Your task to perform on an android device: manage bookmarks in the chrome app Image 0: 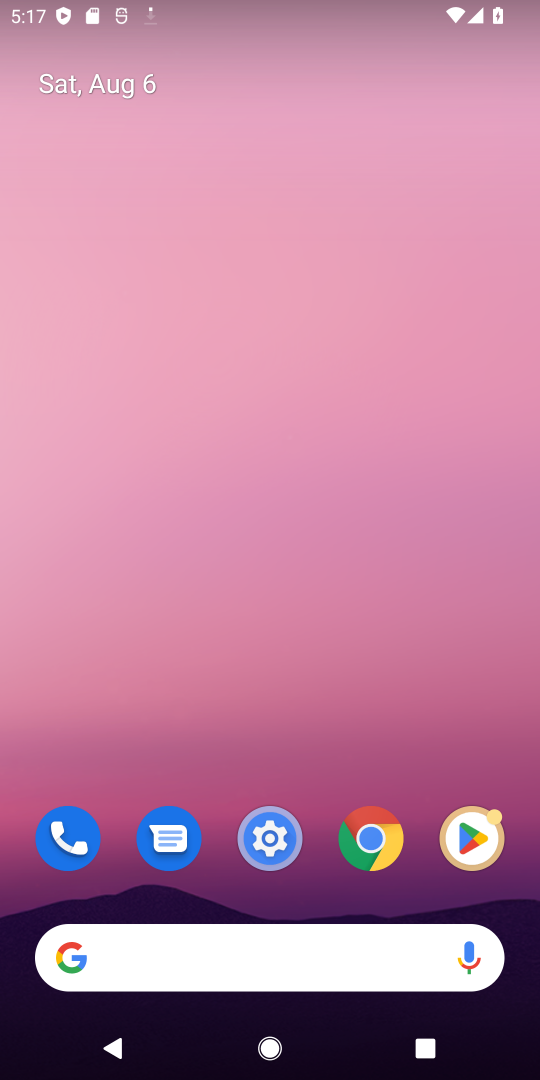
Step 0: click (372, 836)
Your task to perform on an android device: manage bookmarks in the chrome app Image 1: 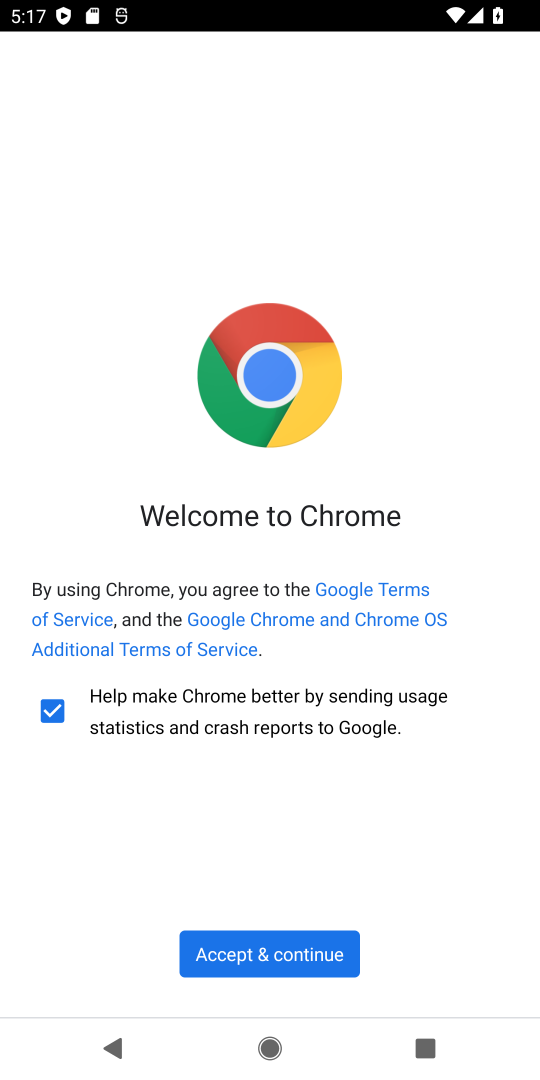
Step 1: click (286, 960)
Your task to perform on an android device: manage bookmarks in the chrome app Image 2: 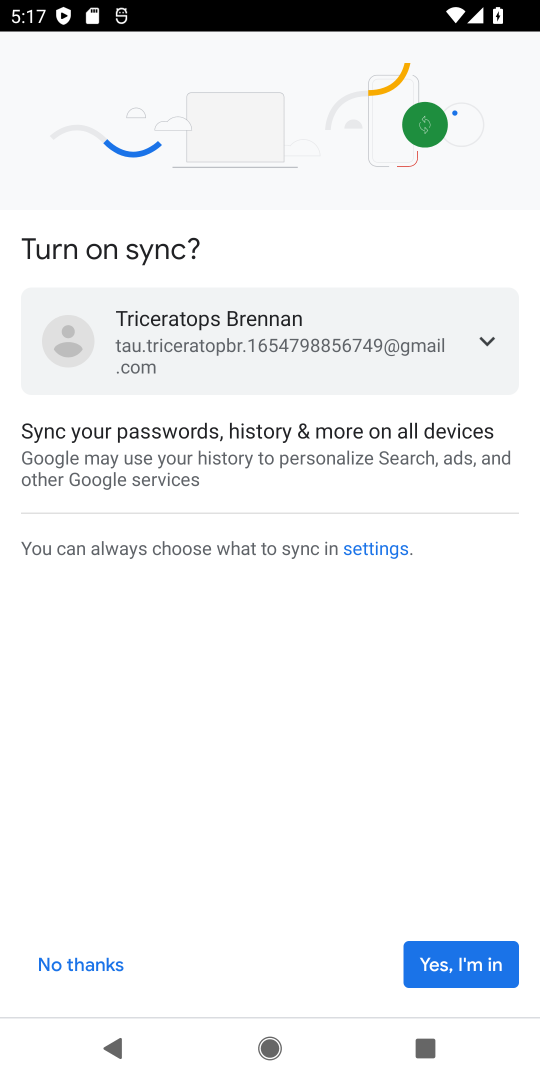
Step 2: click (471, 961)
Your task to perform on an android device: manage bookmarks in the chrome app Image 3: 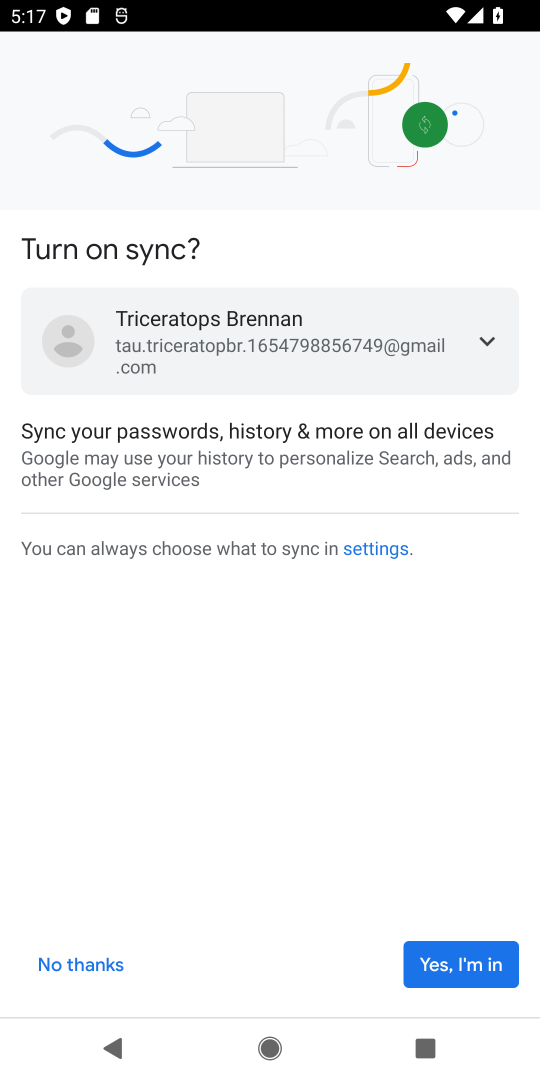
Step 3: click (471, 962)
Your task to perform on an android device: manage bookmarks in the chrome app Image 4: 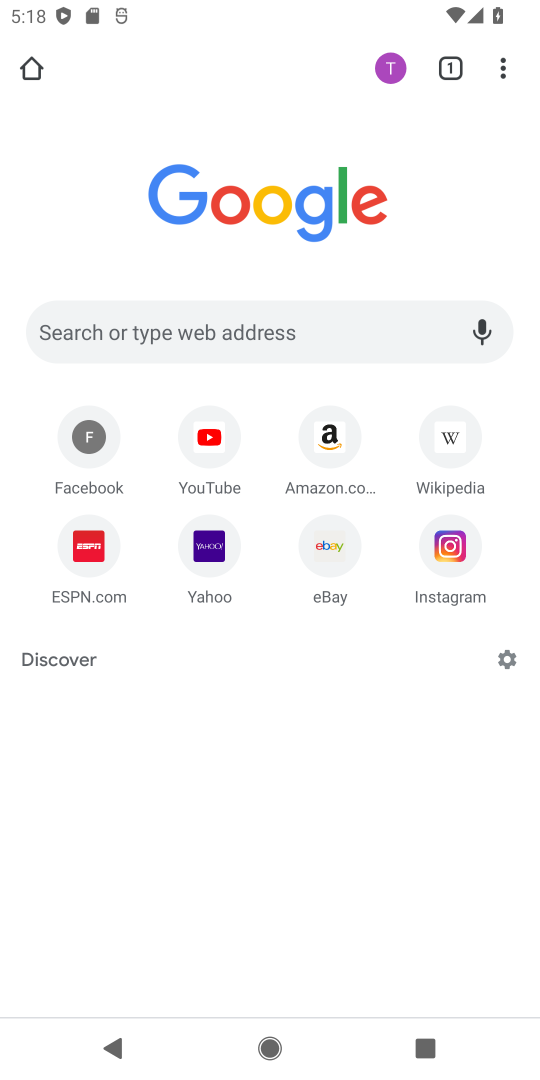
Step 4: click (500, 57)
Your task to perform on an android device: manage bookmarks in the chrome app Image 5: 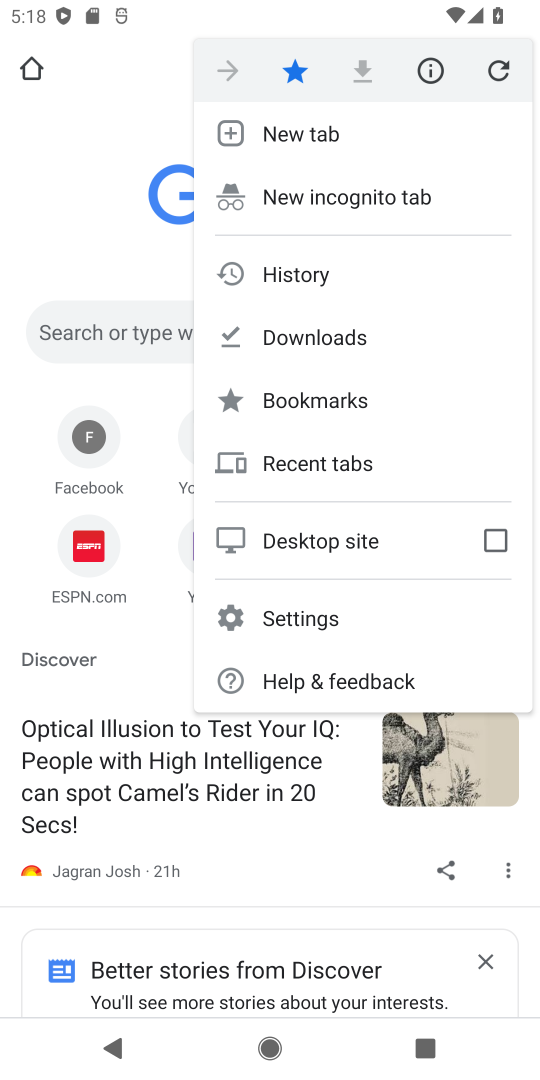
Step 5: click (339, 409)
Your task to perform on an android device: manage bookmarks in the chrome app Image 6: 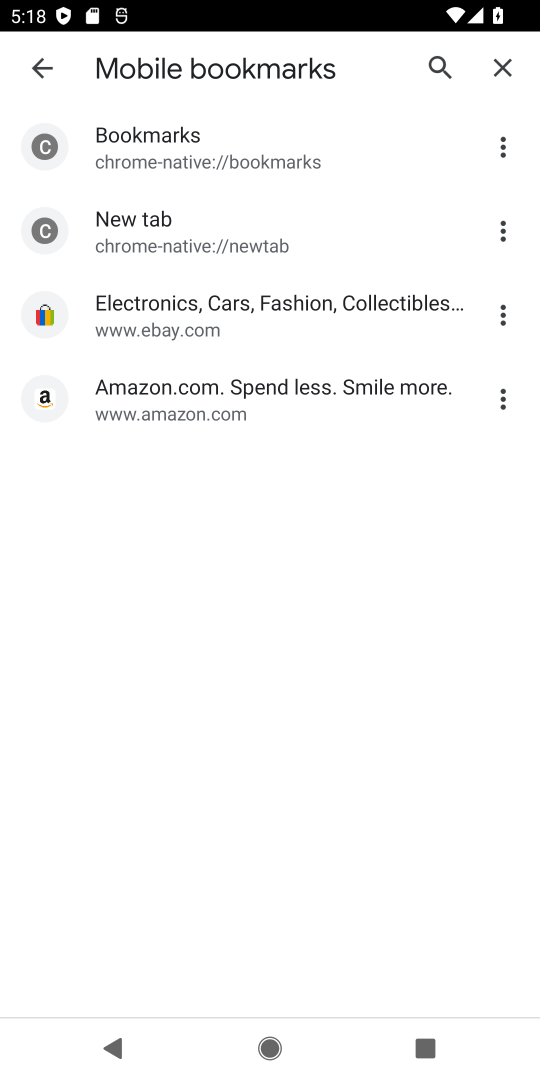
Step 6: click (488, 143)
Your task to perform on an android device: manage bookmarks in the chrome app Image 7: 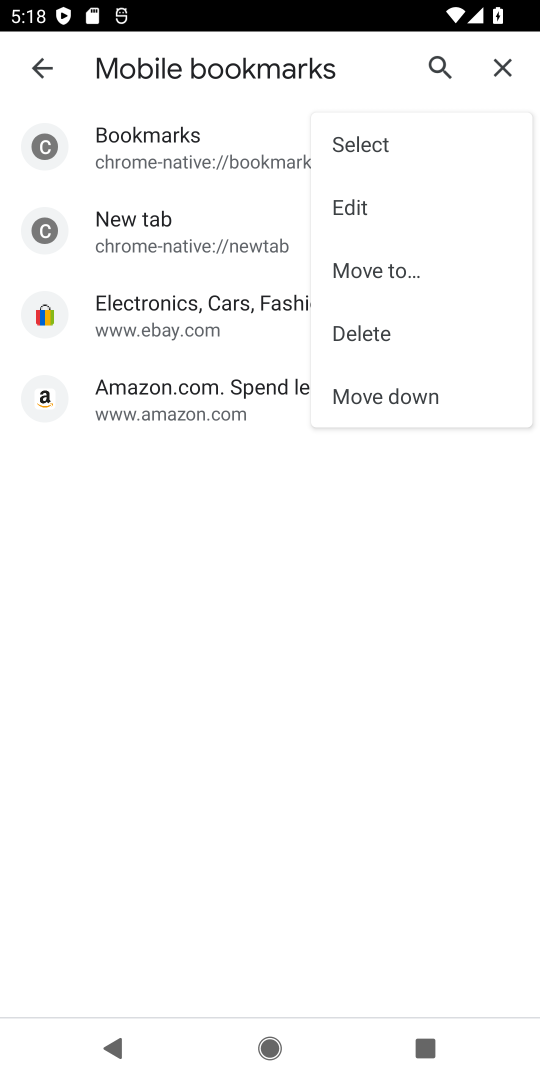
Step 7: click (427, 133)
Your task to perform on an android device: manage bookmarks in the chrome app Image 8: 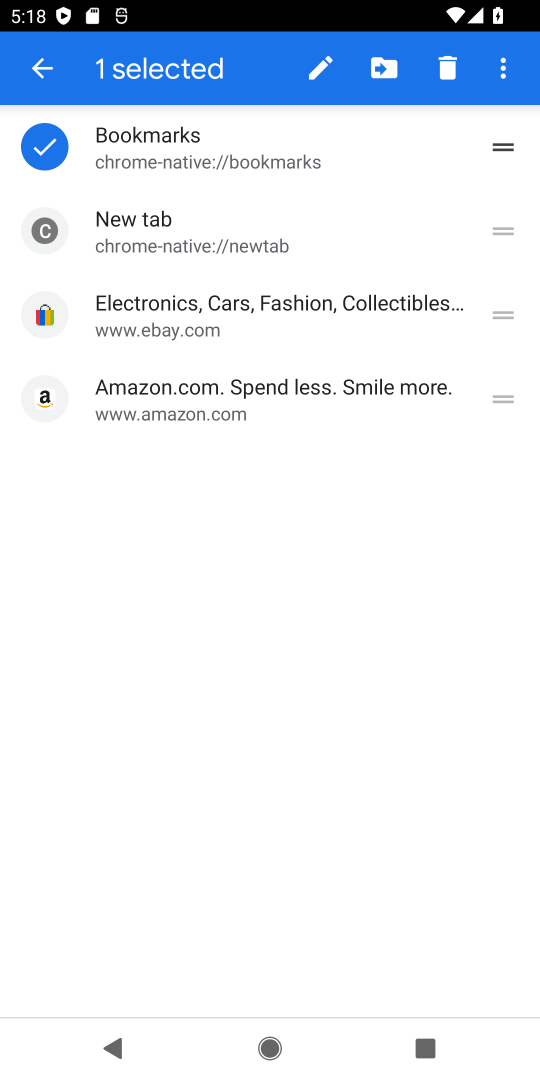
Step 8: click (255, 203)
Your task to perform on an android device: manage bookmarks in the chrome app Image 9: 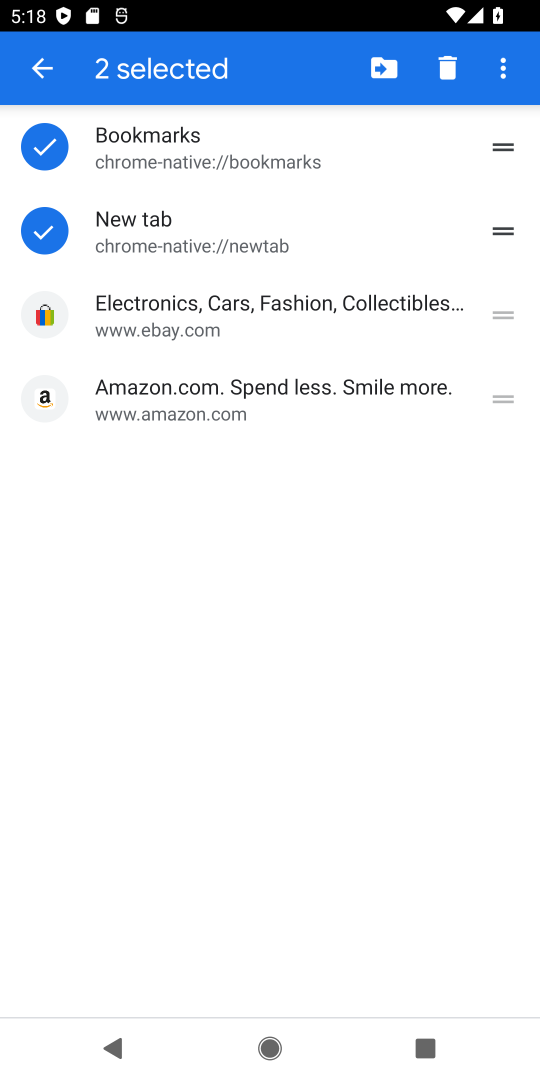
Step 9: click (170, 315)
Your task to perform on an android device: manage bookmarks in the chrome app Image 10: 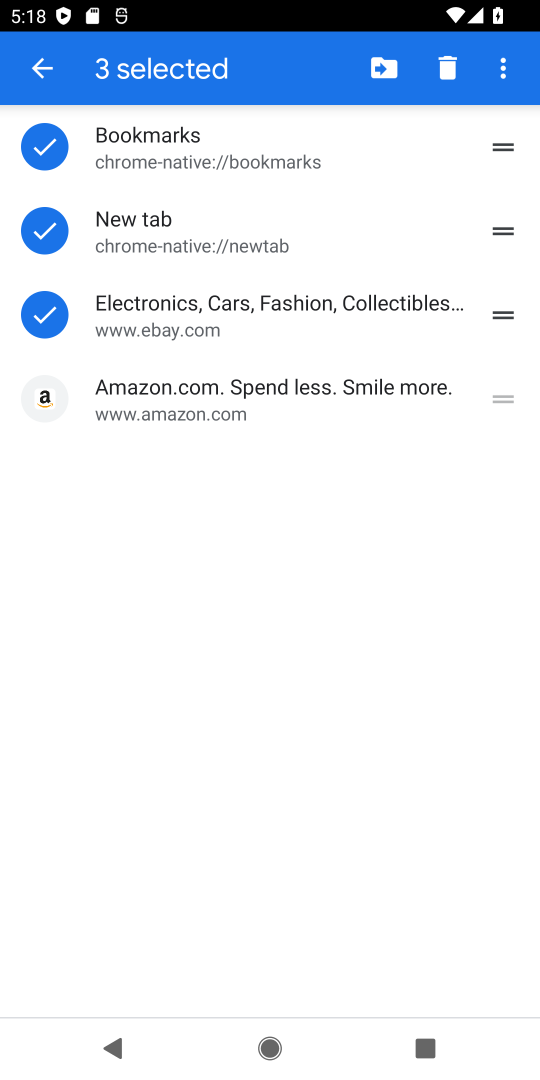
Step 10: click (382, 70)
Your task to perform on an android device: manage bookmarks in the chrome app Image 11: 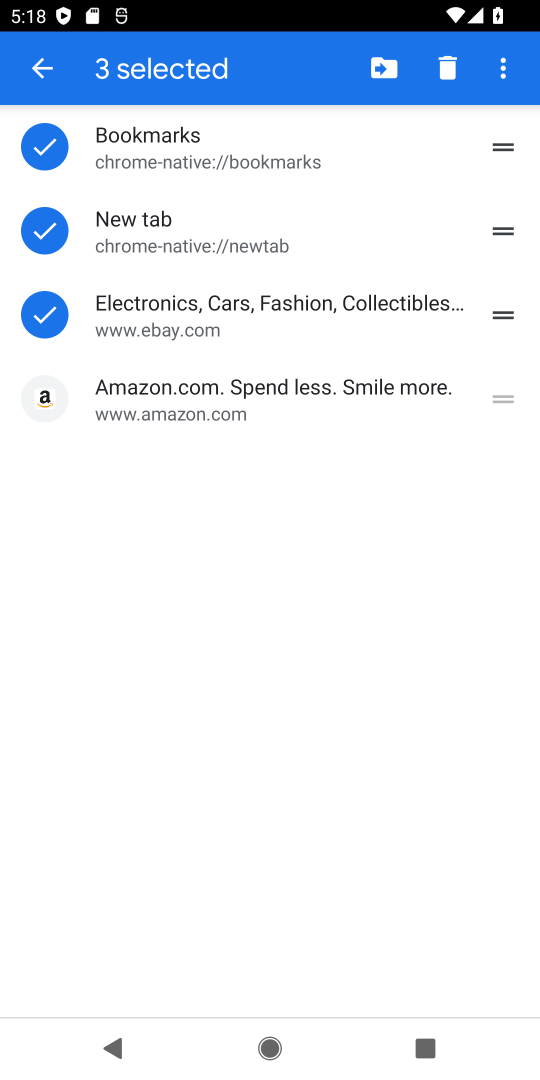
Step 11: click (387, 59)
Your task to perform on an android device: manage bookmarks in the chrome app Image 12: 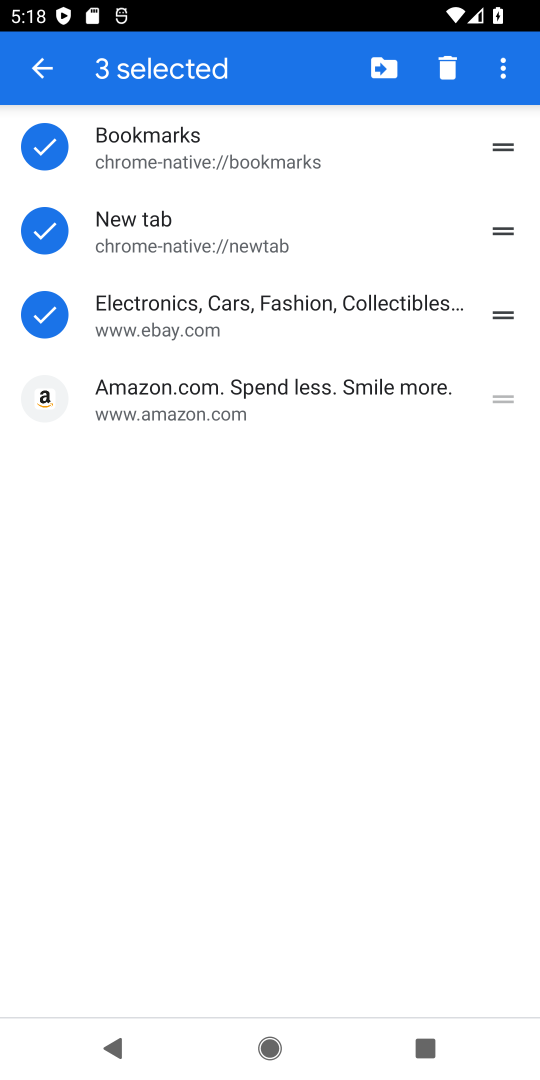
Step 12: click (383, 65)
Your task to perform on an android device: manage bookmarks in the chrome app Image 13: 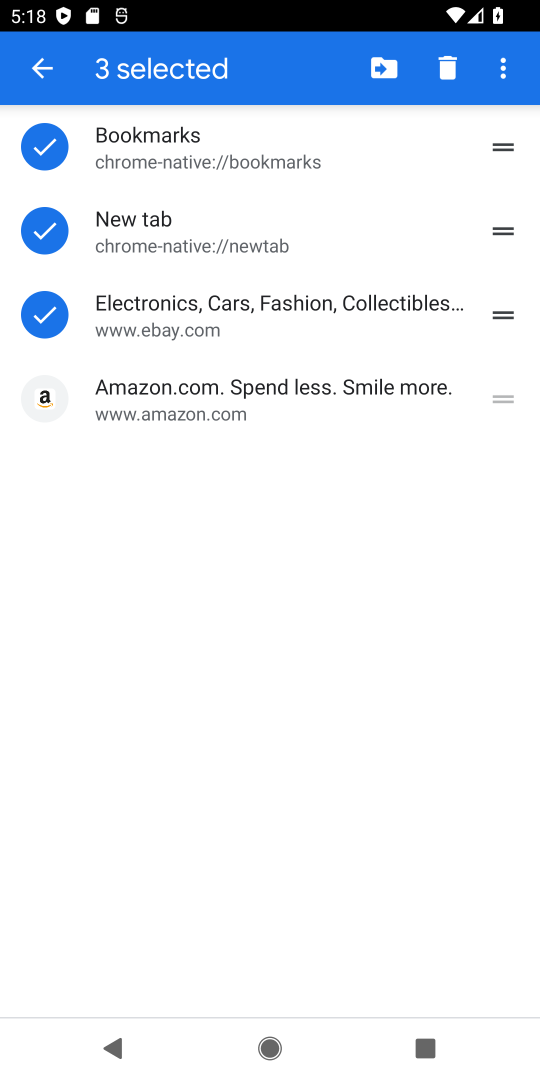
Step 13: click (380, 73)
Your task to perform on an android device: manage bookmarks in the chrome app Image 14: 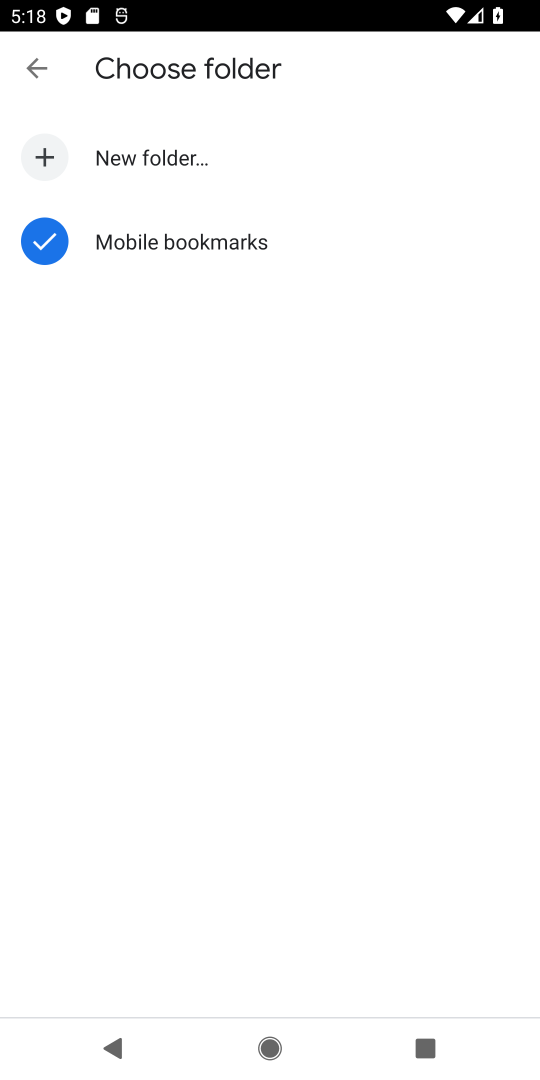
Step 14: click (383, 76)
Your task to perform on an android device: manage bookmarks in the chrome app Image 15: 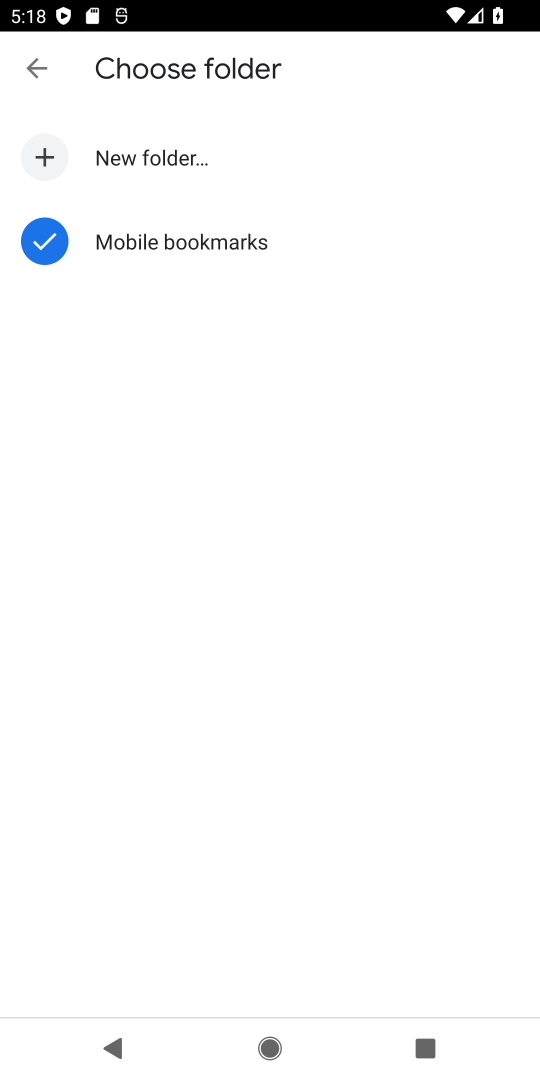
Step 15: click (182, 156)
Your task to perform on an android device: manage bookmarks in the chrome app Image 16: 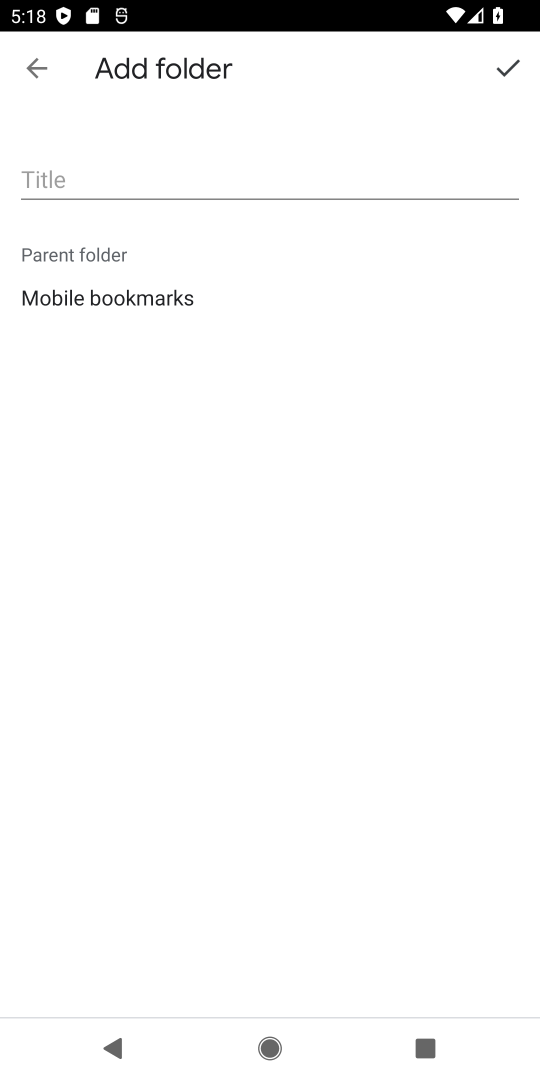
Step 16: click (189, 160)
Your task to perform on an android device: manage bookmarks in the chrome app Image 17: 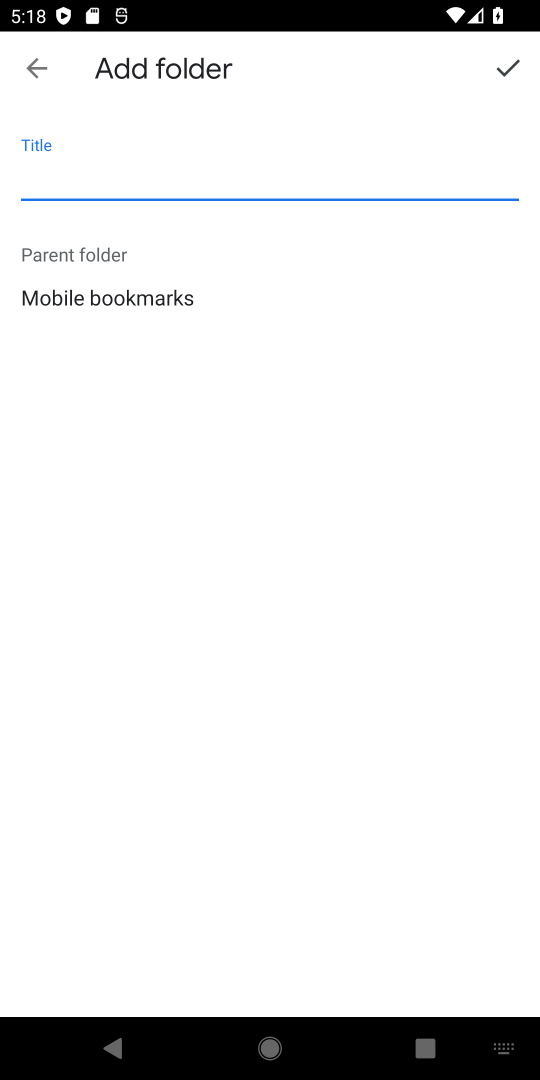
Step 17: type "nazli"
Your task to perform on an android device: manage bookmarks in the chrome app Image 18: 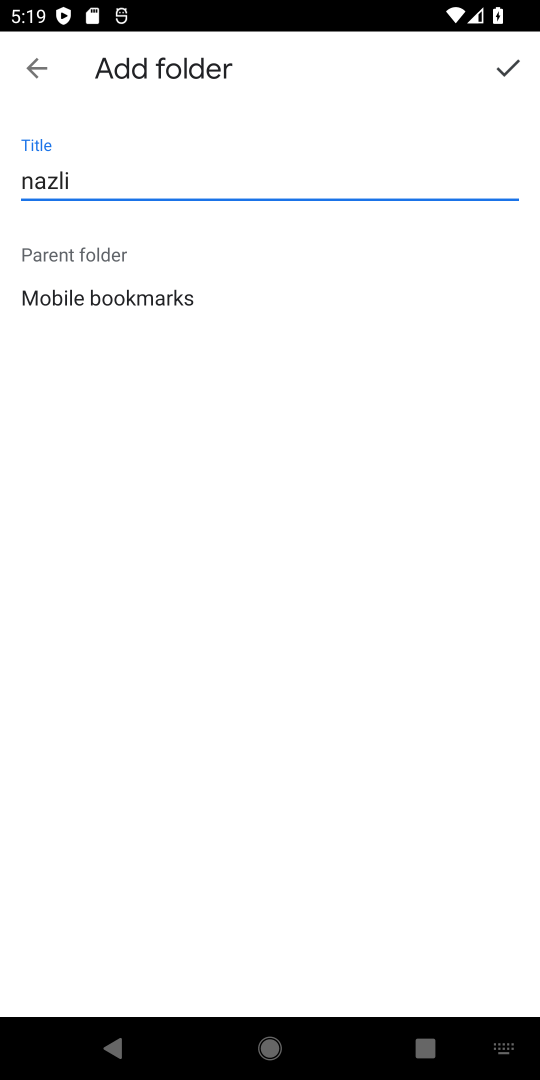
Step 18: click (504, 70)
Your task to perform on an android device: manage bookmarks in the chrome app Image 19: 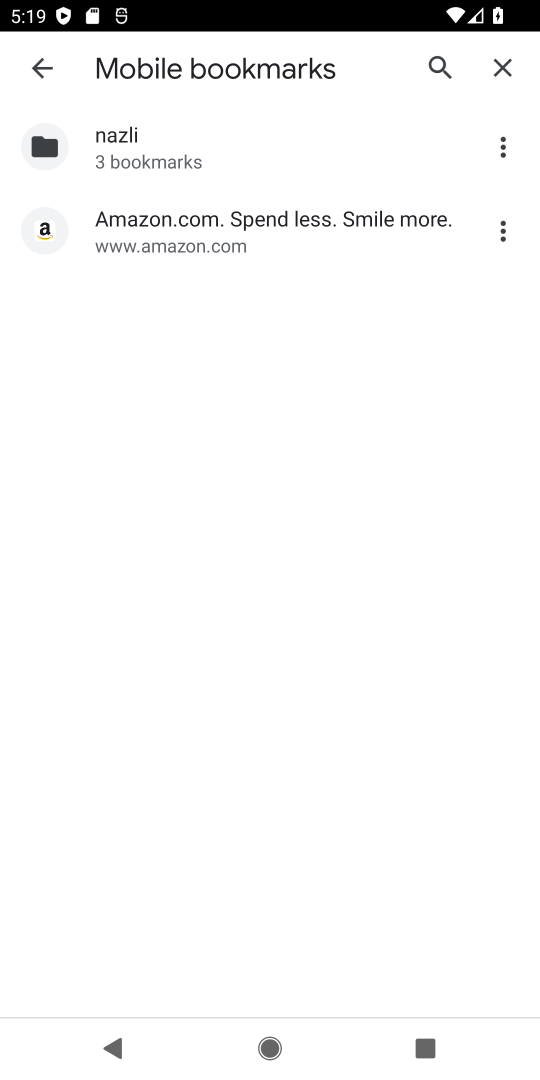
Step 19: task complete